Your task to perform on an android device: turn off wifi Image 0: 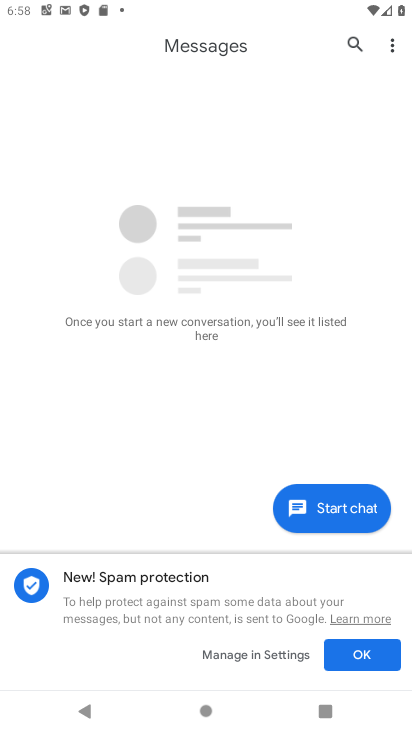
Step 0: press home button
Your task to perform on an android device: turn off wifi Image 1: 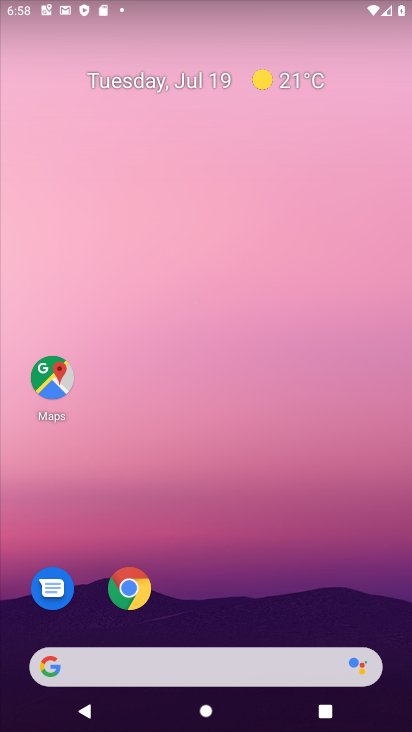
Step 1: drag from (345, 9) to (336, 708)
Your task to perform on an android device: turn off wifi Image 2: 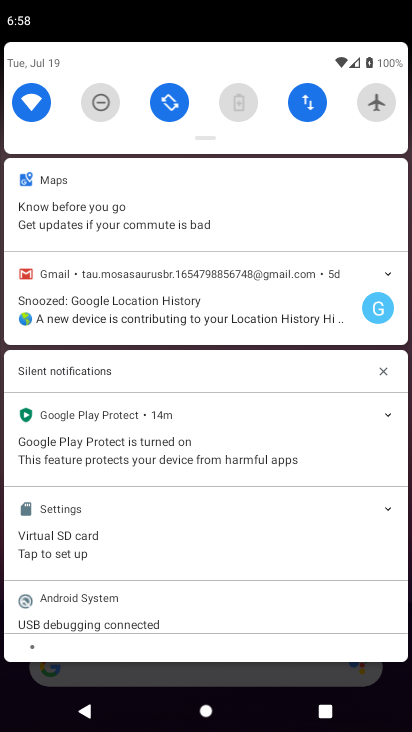
Step 2: click (31, 113)
Your task to perform on an android device: turn off wifi Image 3: 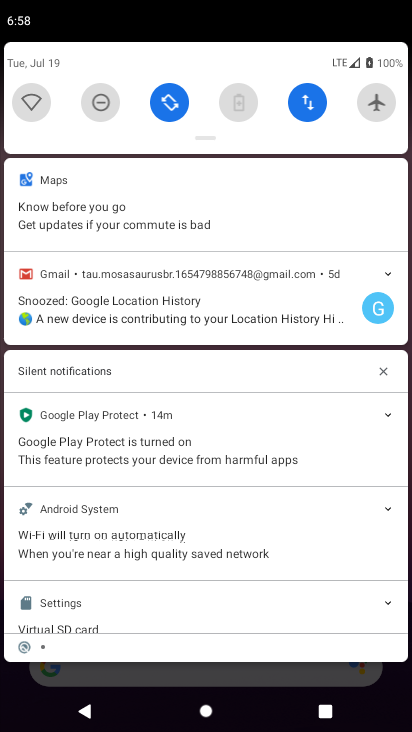
Step 3: task complete